Your task to perform on an android device: What's on my calendar tomorrow? Image 0: 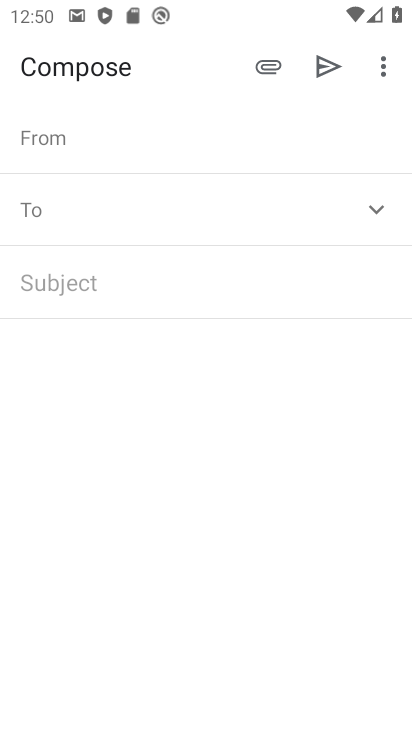
Step 0: press home button
Your task to perform on an android device: What's on my calendar tomorrow? Image 1: 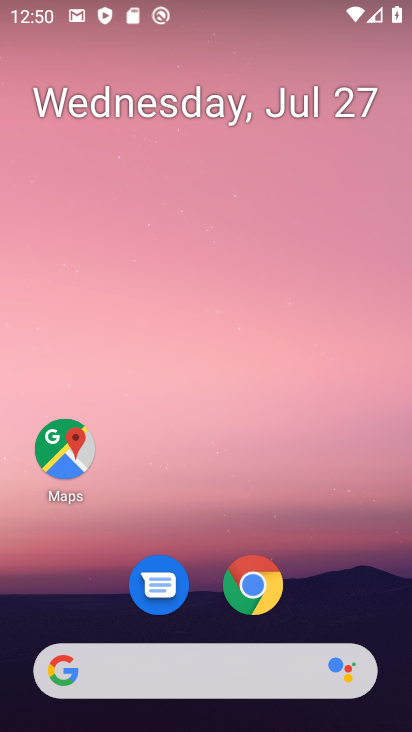
Step 1: drag from (214, 647) to (286, 55)
Your task to perform on an android device: What's on my calendar tomorrow? Image 2: 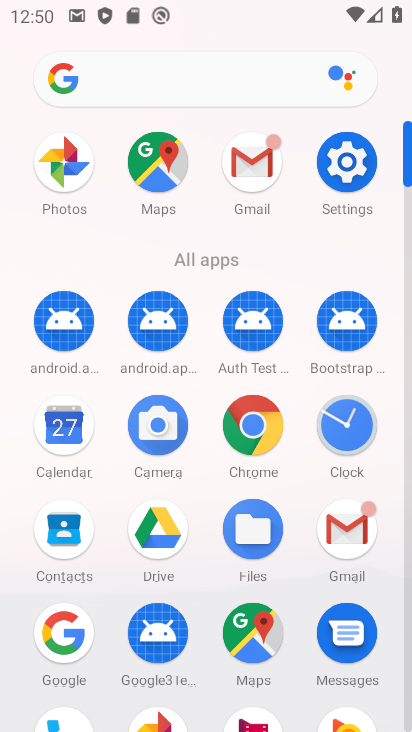
Step 2: click (66, 437)
Your task to perform on an android device: What's on my calendar tomorrow? Image 3: 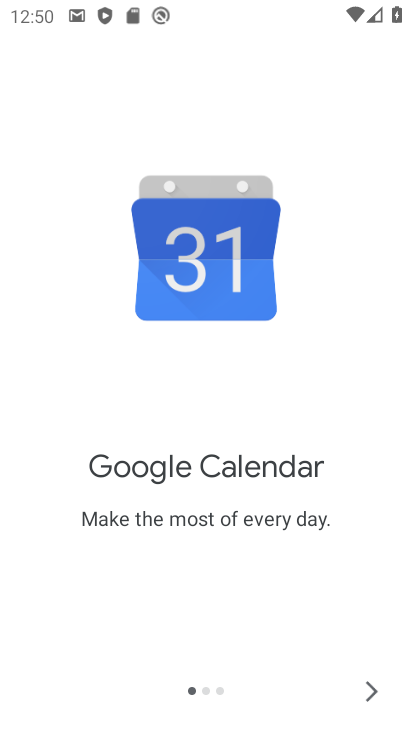
Step 3: click (367, 691)
Your task to perform on an android device: What's on my calendar tomorrow? Image 4: 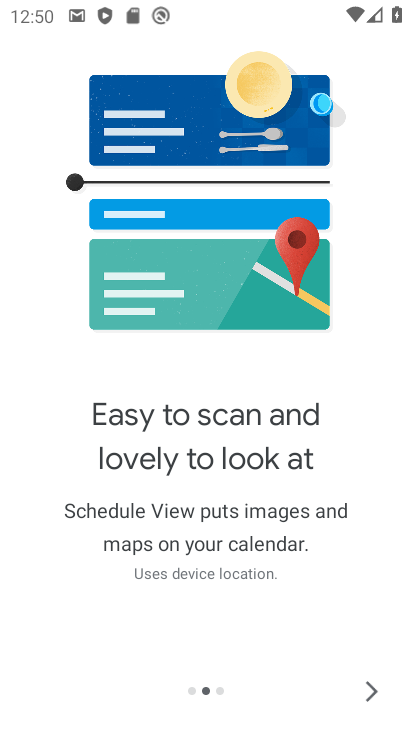
Step 4: click (367, 691)
Your task to perform on an android device: What's on my calendar tomorrow? Image 5: 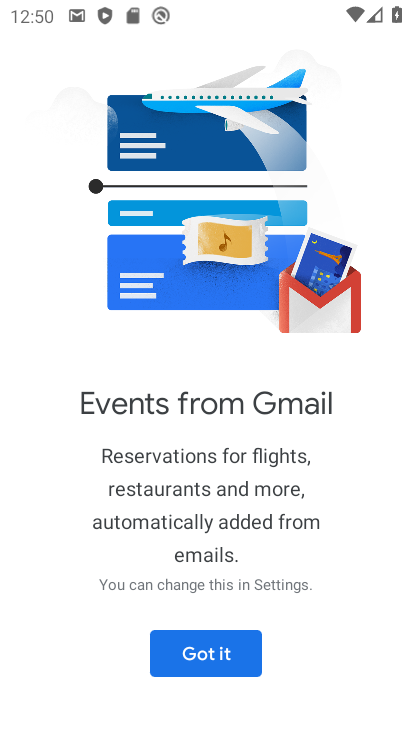
Step 5: click (210, 653)
Your task to perform on an android device: What's on my calendar tomorrow? Image 6: 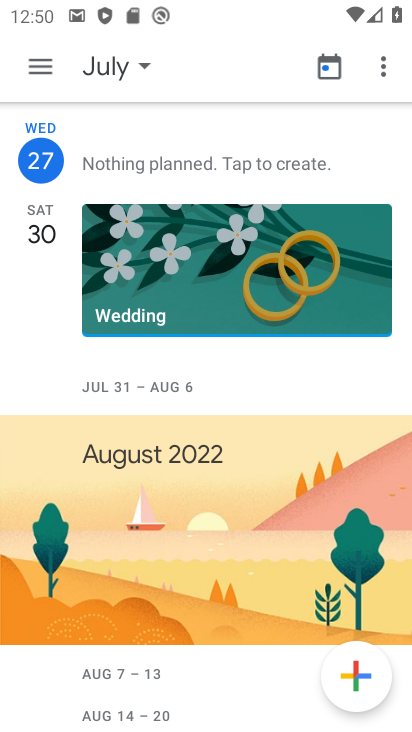
Step 6: click (117, 65)
Your task to perform on an android device: What's on my calendar tomorrow? Image 7: 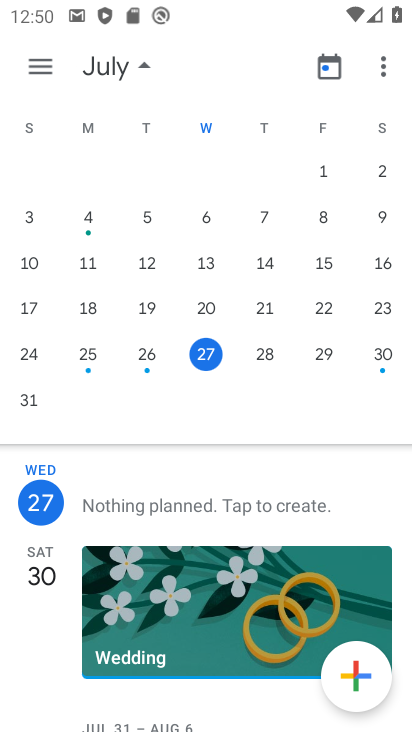
Step 7: click (260, 352)
Your task to perform on an android device: What's on my calendar tomorrow? Image 8: 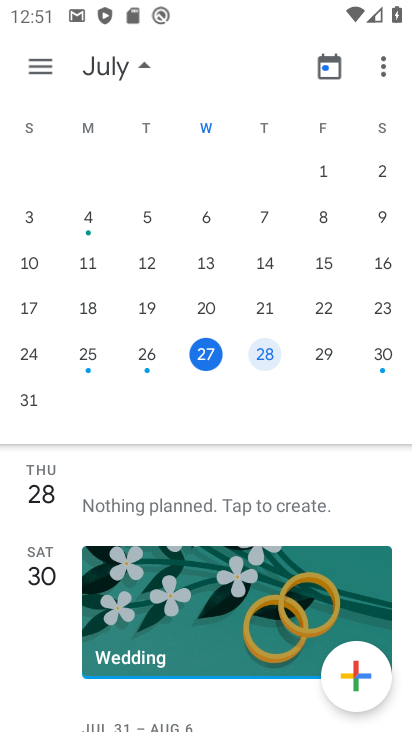
Step 8: click (42, 67)
Your task to perform on an android device: What's on my calendar tomorrow? Image 9: 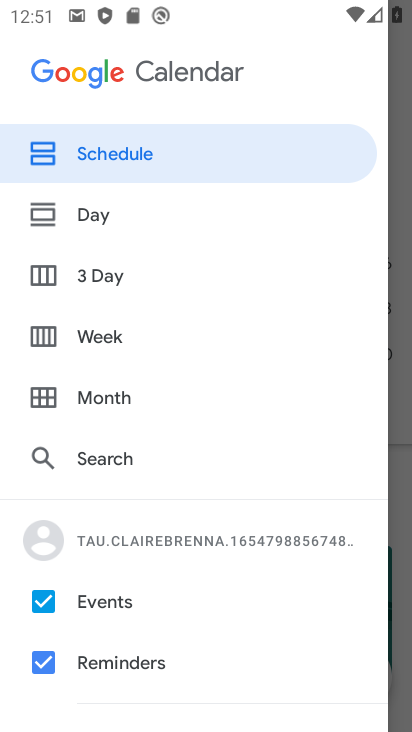
Step 9: click (119, 146)
Your task to perform on an android device: What's on my calendar tomorrow? Image 10: 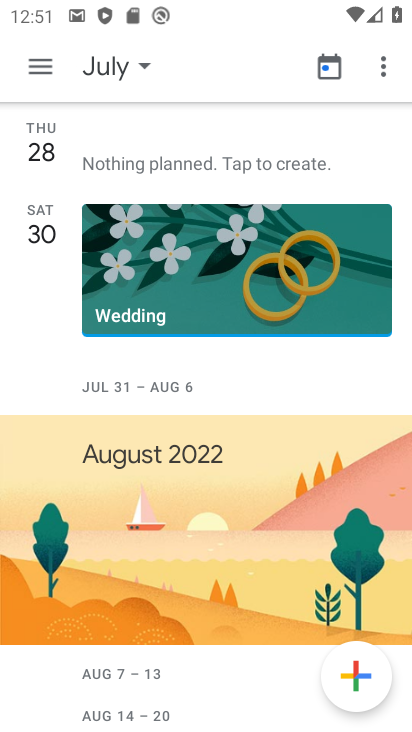
Step 10: task complete